Your task to perform on an android device: toggle wifi Image 0: 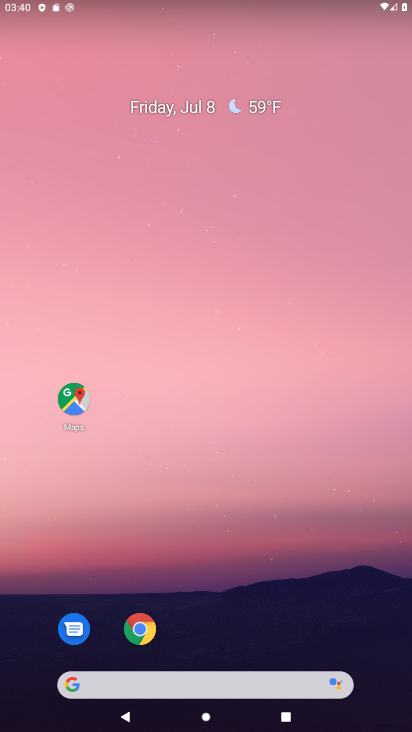
Step 0: drag from (222, 652) to (267, 11)
Your task to perform on an android device: toggle wifi Image 1: 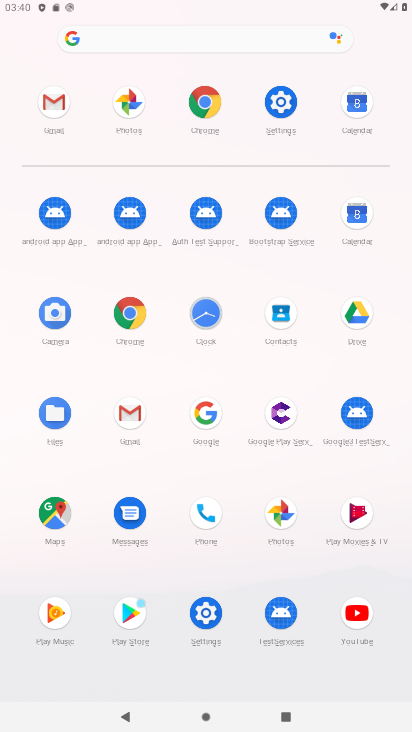
Step 1: click (281, 101)
Your task to perform on an android device: toggle wifi Image 2: 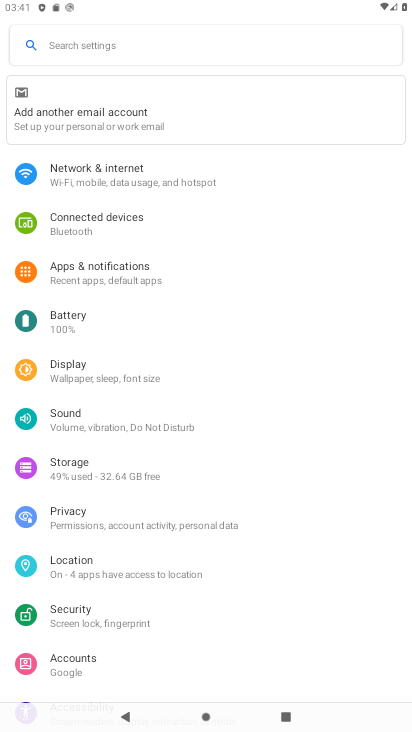
Step 2: click (161, 168)
Your task to perform on an android device: toggle wifi Image 3: 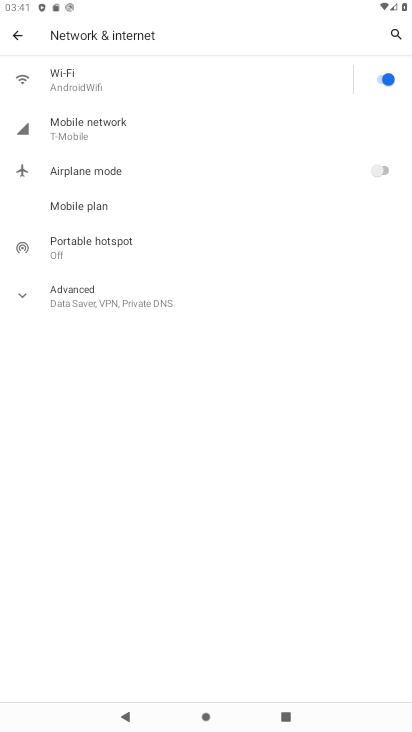
Step 3: click (383, 81)
Your task to perform on an android device: toggle wifi Image 4: 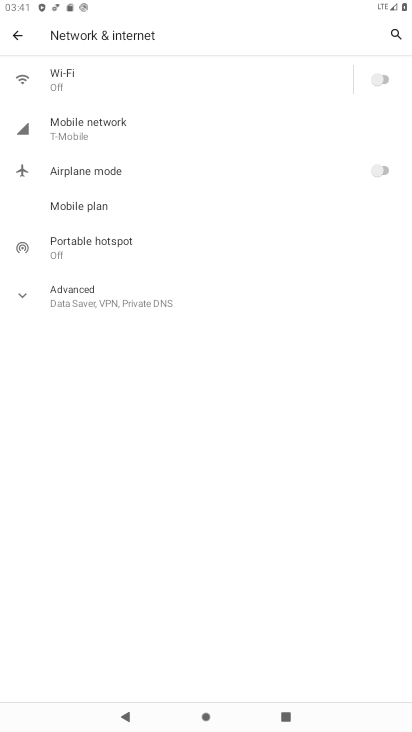
Step 4: task complete